Your task to perform on an android device: toggle improve location accuracy Image 0: 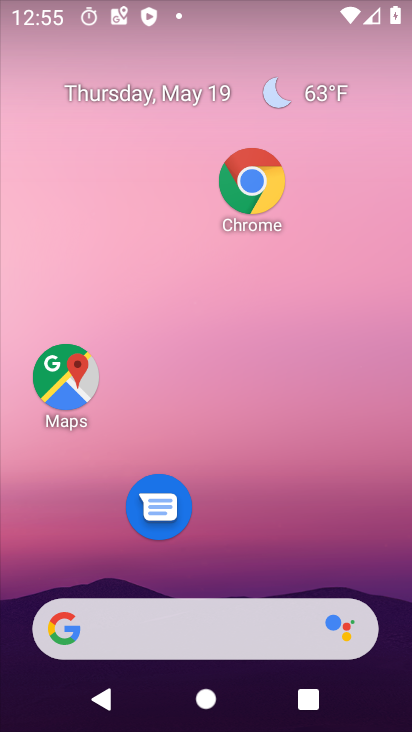
Step 0: drag from (199, 570) to (229, 0)
Your task to perform on an android device: toggle improve location accuracy Image 1: 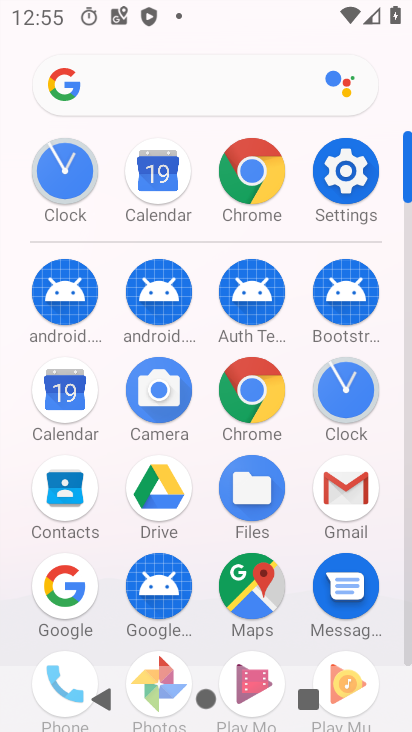
Step 1: click (342, 186)
Your task to perform on an android device: toggle improve location accuracy Image 2: 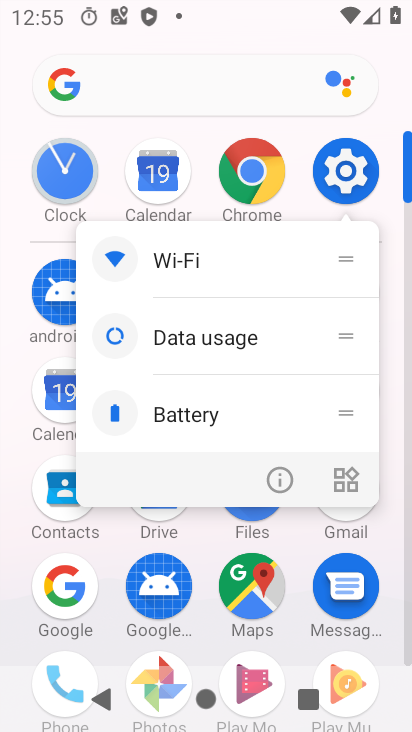
Step 2: click (340, 179)
Your task to perform on an android device: toggle improve location accuracy Image 3: 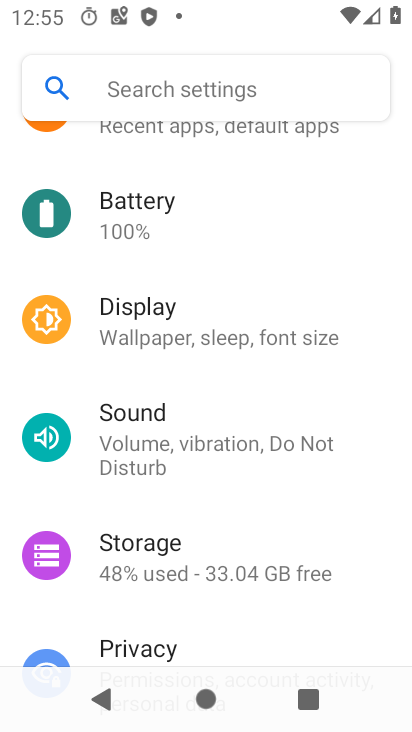
Step 3: drag from (215, 201) to (211, 461)
Your task to perform on an android device: toggle improve location accuracy Image 4: 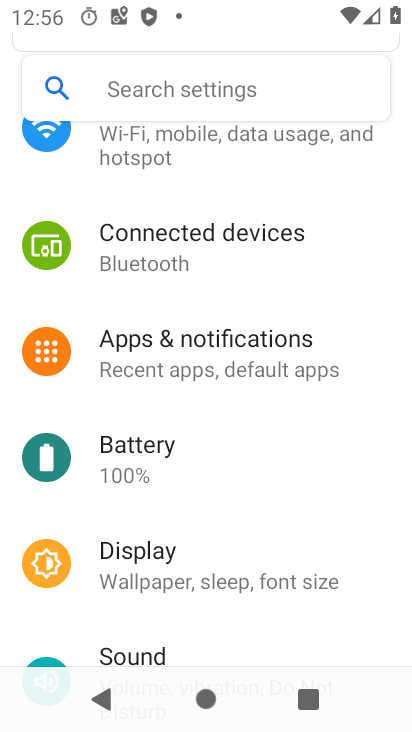
Step 4: drag from (205, 577) to (187, 301)
Your task to perform on an android device: toggle improve location accuracy Image 5: 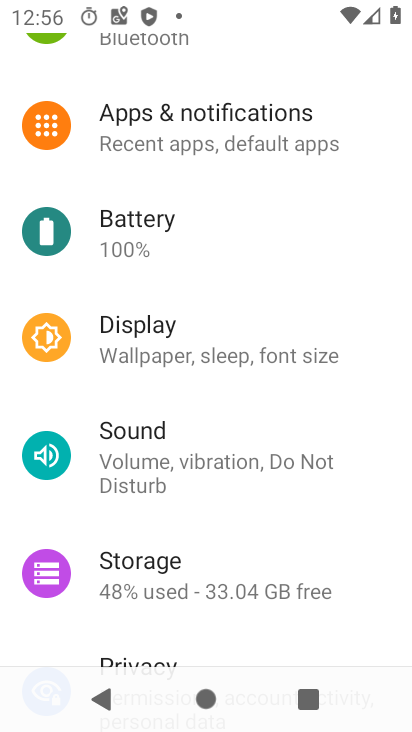
Step 5: drag from (212, 613) to (281, 294)
Your task to perform on an android device: toggle improve location accuracy Image 6: 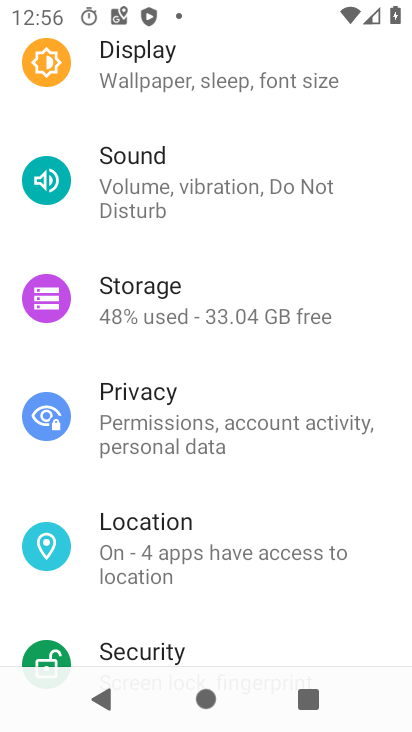
Step 6: click (126, 558)
Your task to perform on an android device: toggle improve location accuracy Image 7: 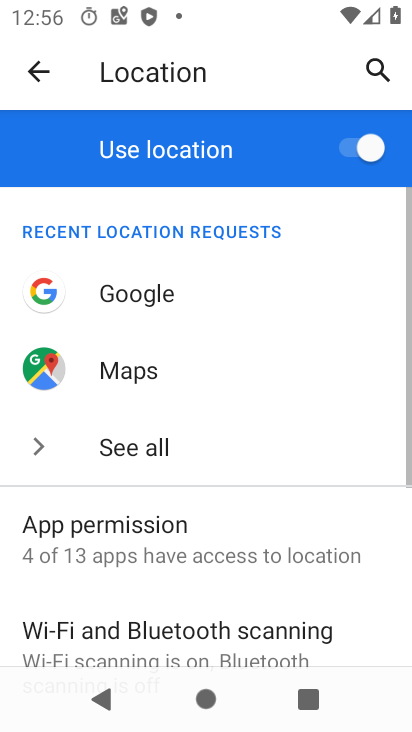
Step 7: drag from (172, 601) to (222, 317)
Your task to perform on an android device: toggle improve location accuracy Image 8: 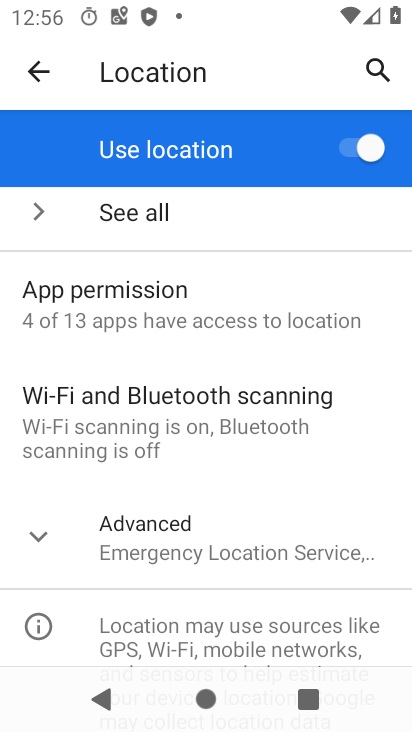
Step 8: click (137, 556)
Your task to perform on an android device: toggle improve location accuracy Image 9: 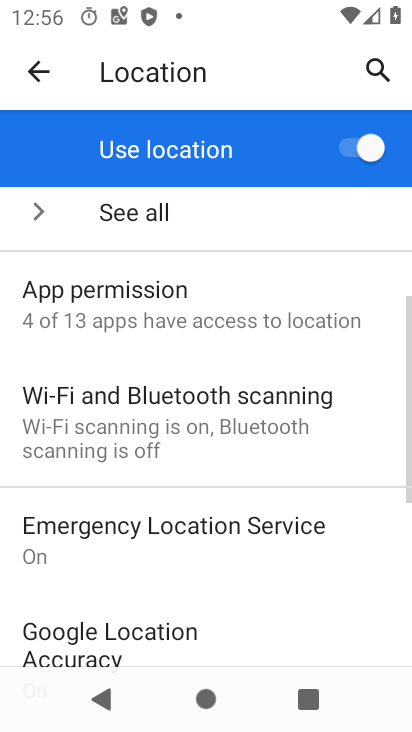
Step 9: drag from (173, 612) to (207, 305)
Your task to perform on an android device: toggle improve location accuracy Image 10: 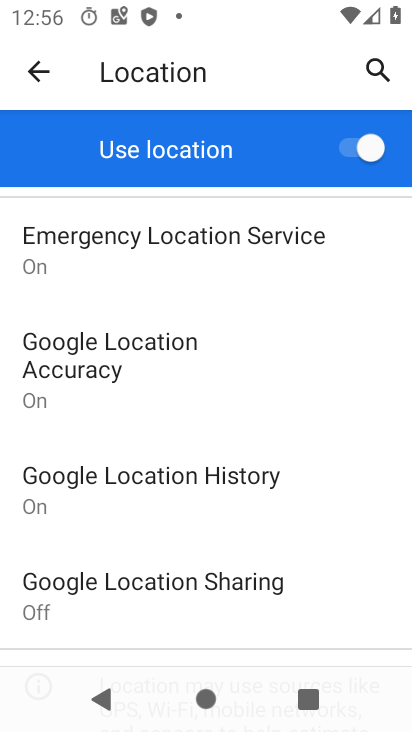
Step 10: click (91, 369)
Your task to perform on an android device: toggle improve location accuracy Image 11: 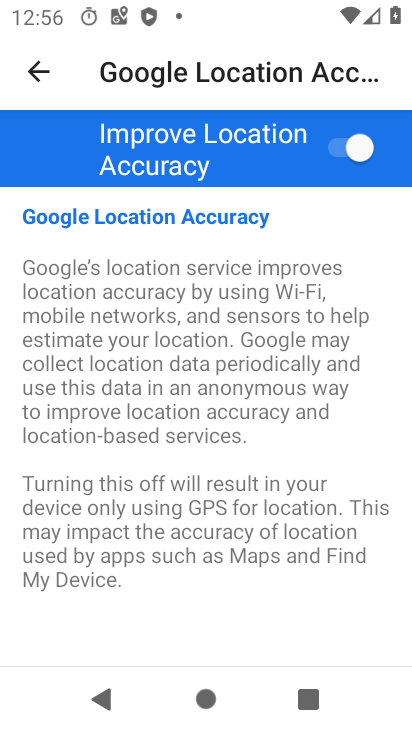
Step 11: click (342, 148)
Your task to perform on an android device: toggle improve location accuracy Image 12: 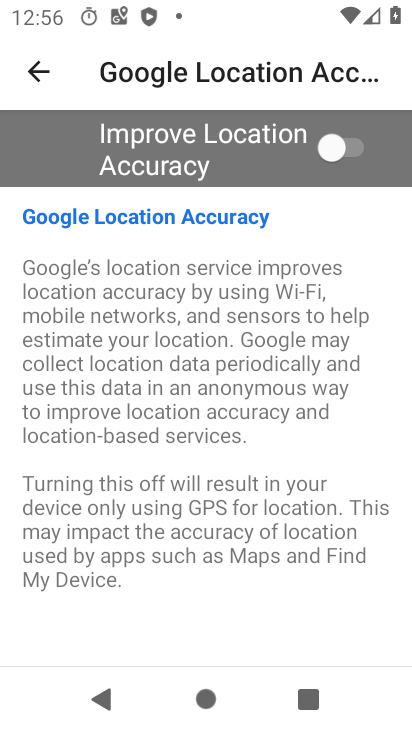
Step 12: task complete